Your task to perform on an android device: allow notifications from all sites in the chrome app Image 0: 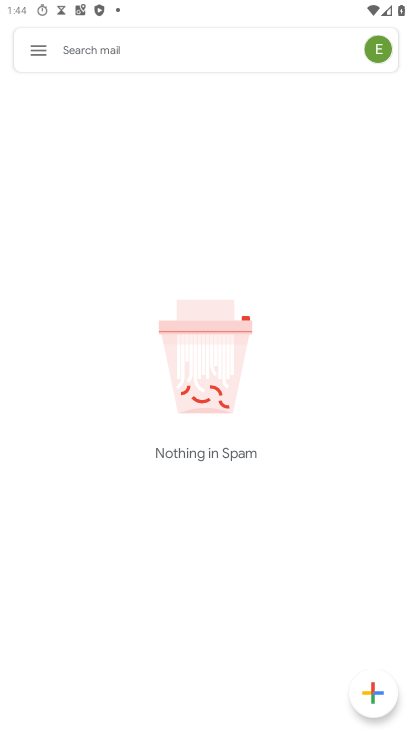
Step 0: press home button
Your task to perform on an android device: allow notifications from all sites in the chrome app Image 1: 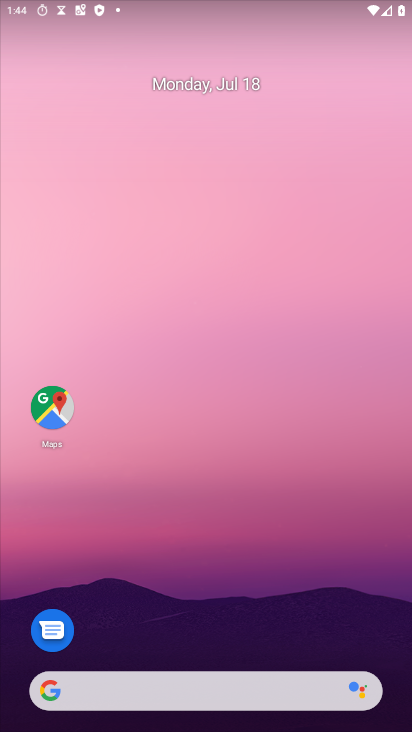
Step 1: drag from (197, 718) to (321, 76)
Your task to perform on an android device: allow notifications from all sites in the chrome app Image 2: 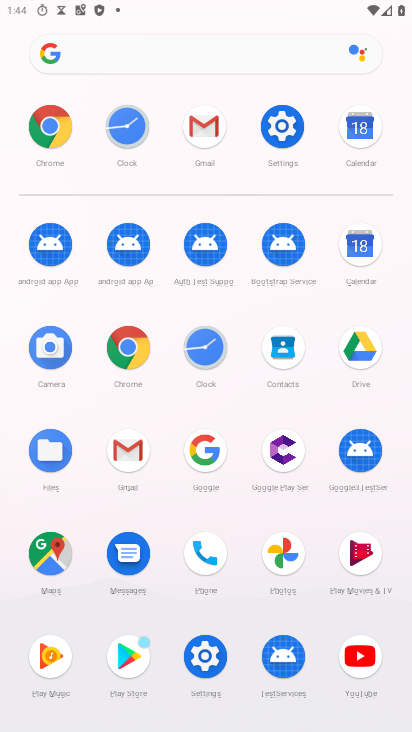
Step 2: click (131, 345)
Your task to perform on an android device: allow notifications from all sites in the chrome app Image 3: 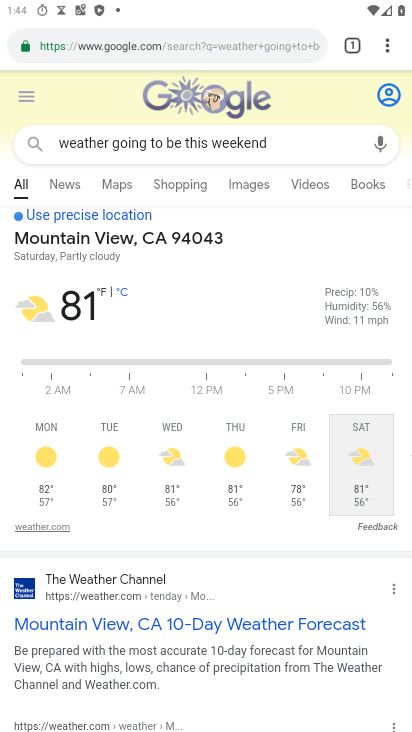
Step 3: click (395, 41)
Your task to perform on an android device: allow notifications from all sites in the chrome app Image 4: 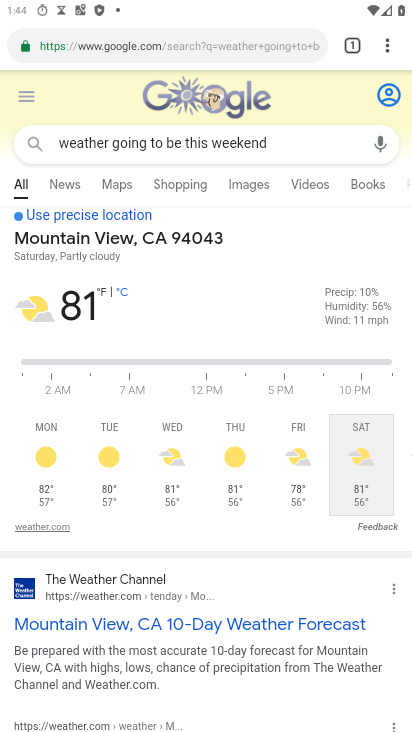
Step 4: drag from (384, 41) to (234, 504)
Your task to perform on an android device: allow notifications from all sites in the chrome app Image 5: 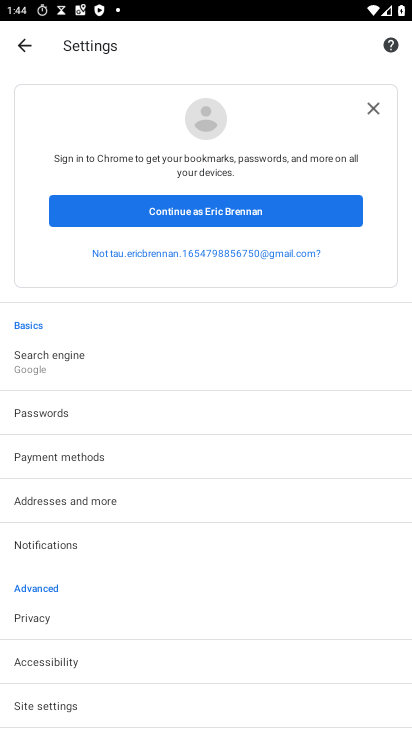
Step 5: drag from (201, 609) to (207, 201)
Your task to perform on an android device: allow notifications from all sites in the chrome app Image 6: 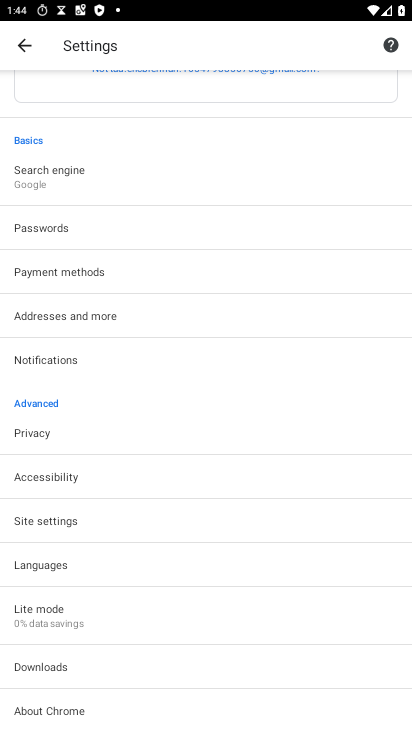
Step 6: click (85, 533)
Your task to perform on an android device: allow notifications from all sites in the chrome app Image 7: 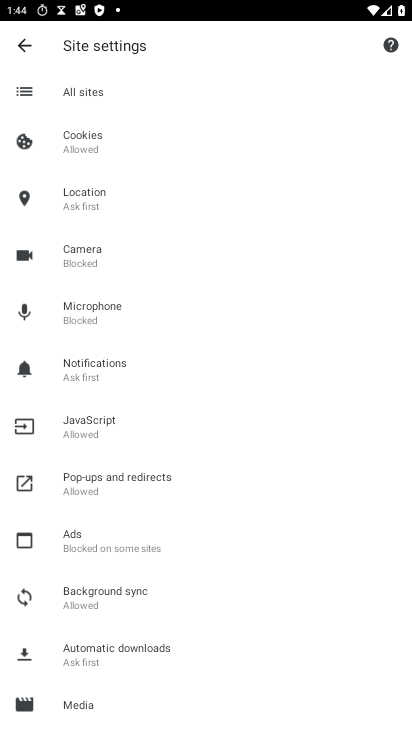
Step 7: click (138, 373)
Your task to perform on an android device: allow notifications from all sites in the chrome app Image 8: 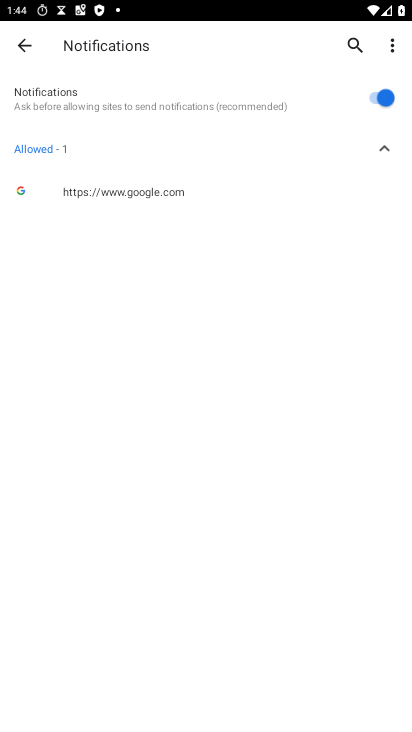
Step 8: task complete